Your task to perform on an android device: add a contact in the contacts app Image 0: 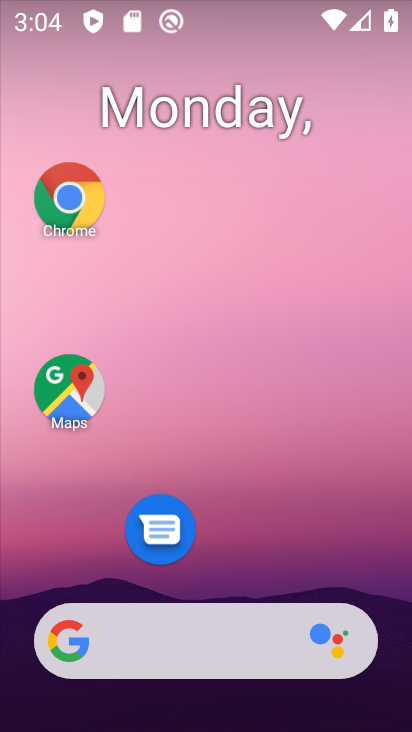
Step 0: drag from (270, 605) to (280, 130)
Your task to perform on an android device: add a contact in the contacts app Image 1: 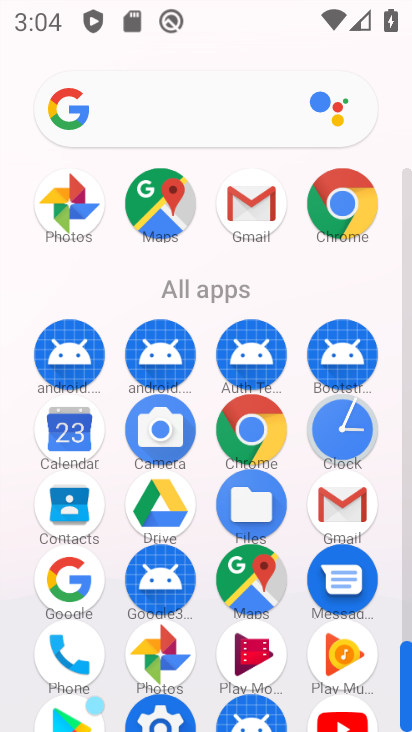
Step 1: click (82, 507)
Your task to perform on an android device: add a contact in the contacts app Image 2: 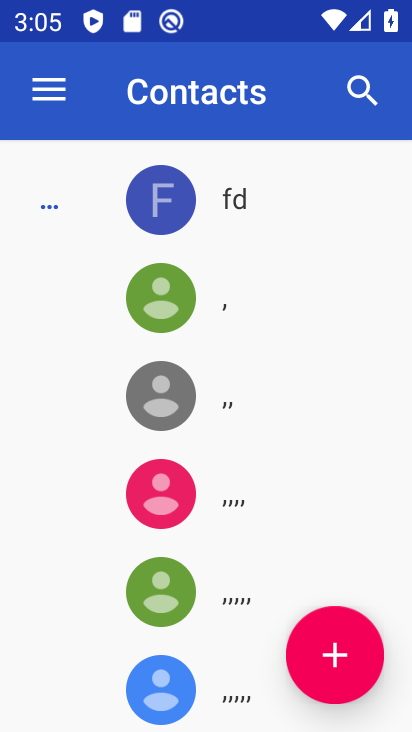
Step 2: click (352, 655)
Your task to perform on an android device: add a contact in the contacts app Image 3: 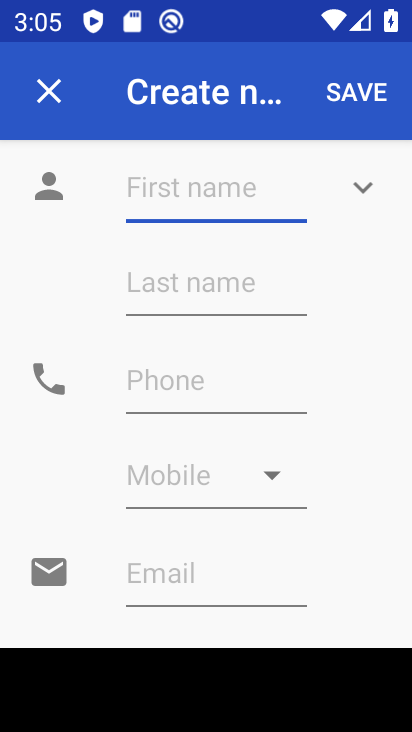
Step 3: type "gunnnu"
Your task to perform on an android device: add a contact in the contacts app Image 4: 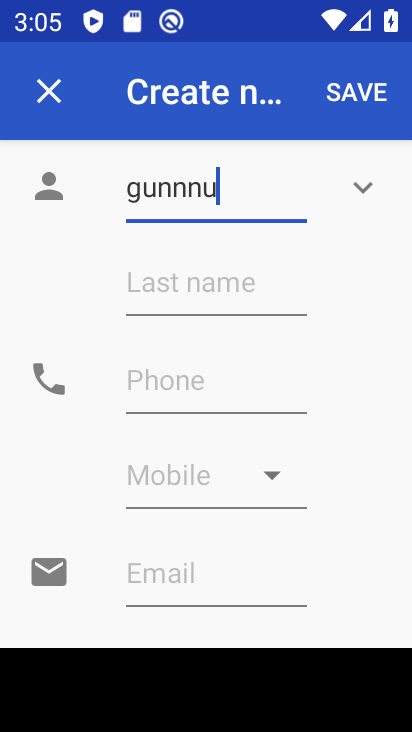
Step 4: click (170, 396)
Your task to perform on an android device: add a contact in the contacts app Image 5: 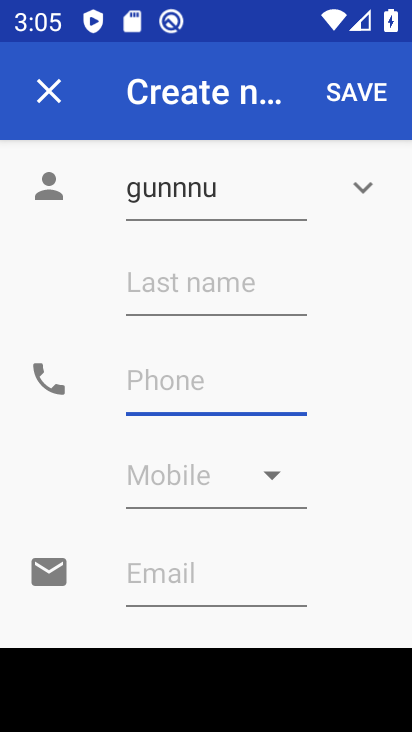
Step 5: type "9889868757"
Your task to perform on an android device: add a contact in the contacts app Image 6: 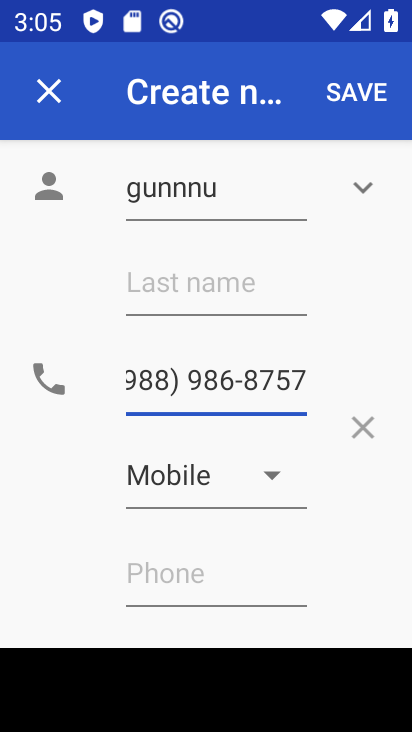
Step 6: click (354, 92)
Your task to perform on an android device: add a contact in the contacts app Image 7: 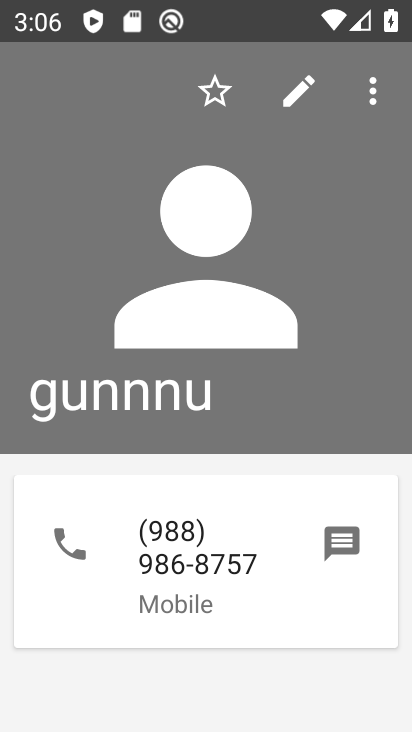
Step 7: task complete